Your task to perform on an android device: change timer sound Image 0: 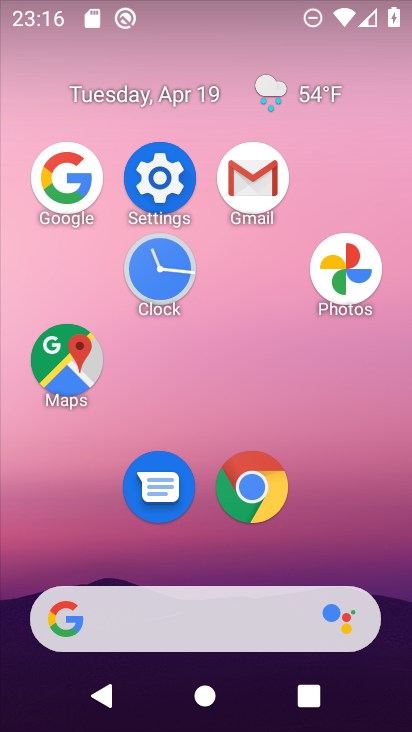
Step 0: click (160, 283)
Your task to perform on an android device: change timer sound Image 1: 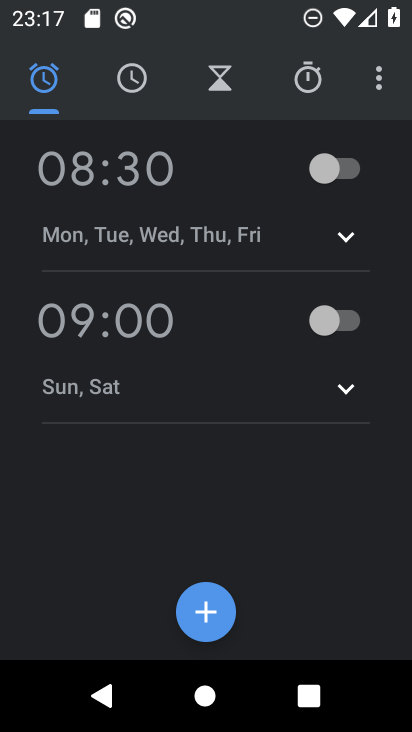
Step 1: click (375, 79)
Your task to perform on an android device: change timer sound Image 2: 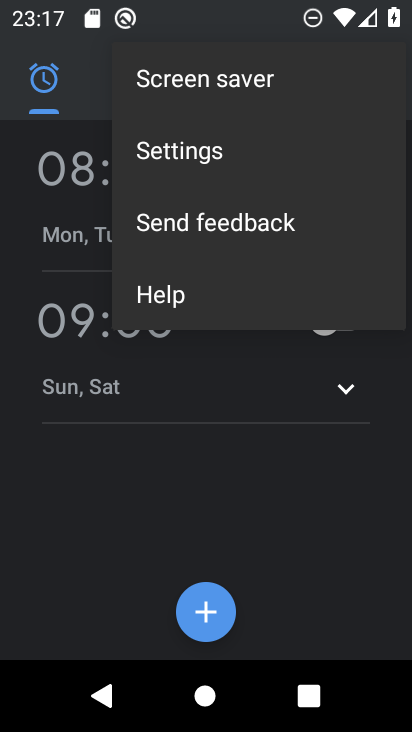
Step 2: click (269, 151)
Your task to perform on an android device: change timer sound Image 3: 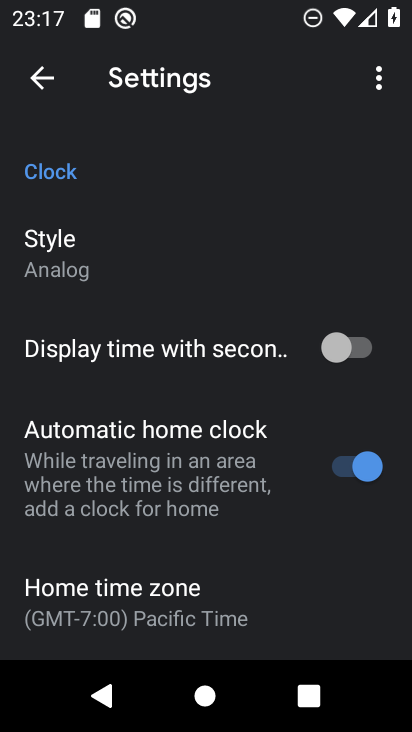
Step 3: drag from (230, 346) to (205, 130)
Your task to perform on an android device: change timer sound Image 4: 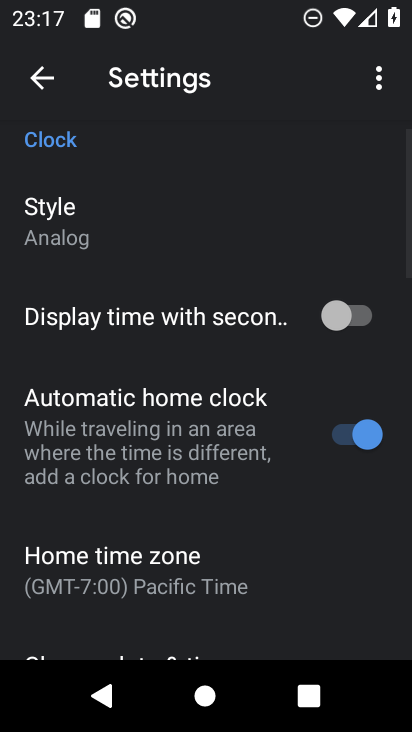
Step 4: drag from (233, 559) to (228, 108)
Your task to perform on an android device: change timer sound Image 5: 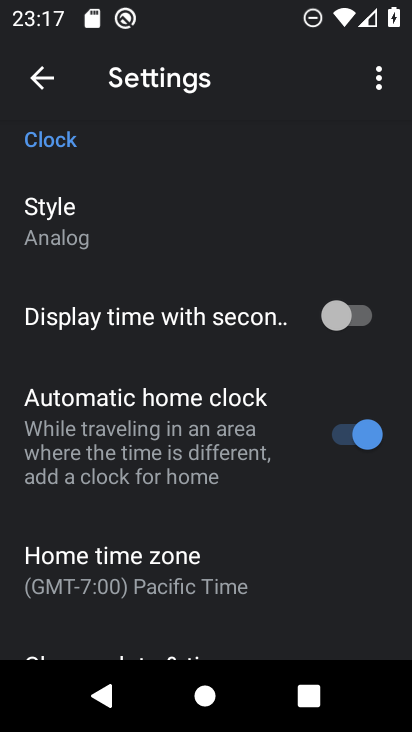
Step 5: drag from (230, 433) to (229, 176)
Your task to perform on an android device: change timer sound Image 6: 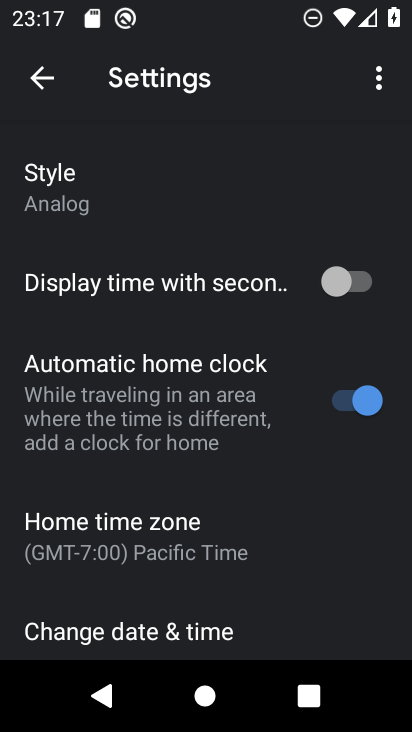
Step 6: drag from (239, 554) to (209, 197)
Your task to perform on an android device: change timer sound Image 7: 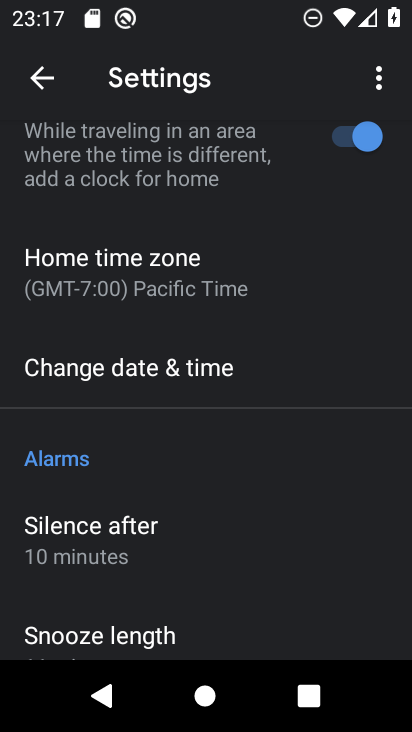
Step 7: drag from (246, 524) to (225, 188)
Your task to perform on an android device: change timer sound Image 8: 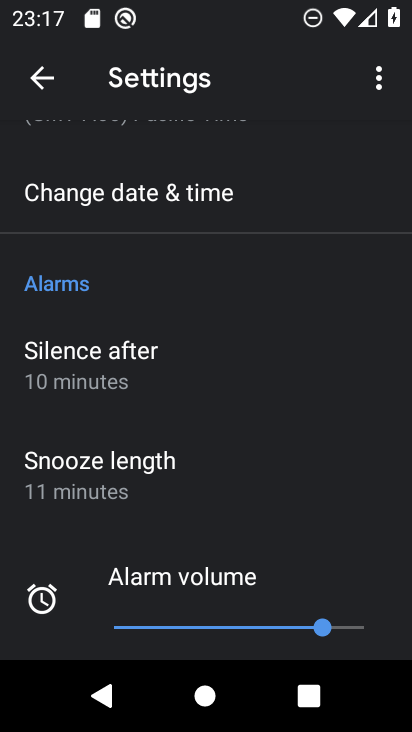
Step 8: drag from (237, 523) to (239, 113)
Your task to perform on an android device: change timer sound Image 9: 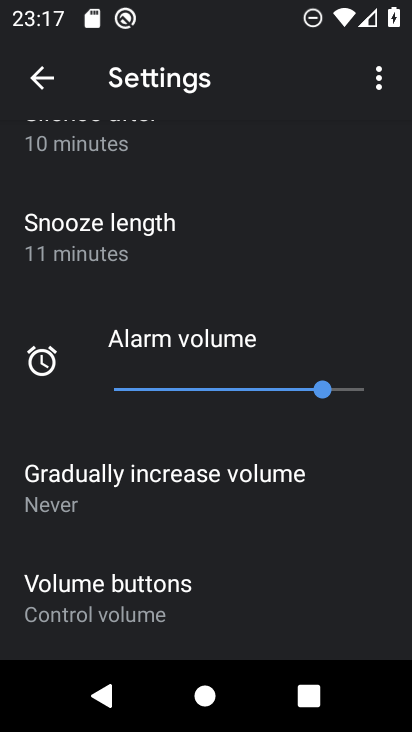
Step 9: drag from (280, 375) to (247, 109)
Your task to perform on an android device: change timer sound Image 10: 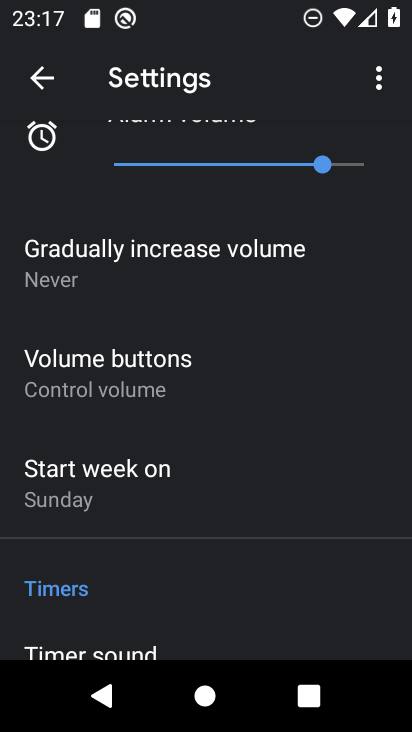
Step 10: drag from (303, 505) to (266, 152)
Your task to perform on an android device: change timer sound Image 11: 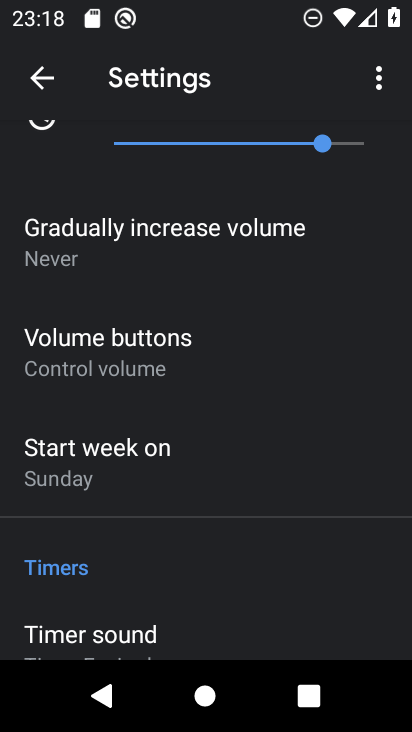
Step 11: drag from (305, 595) to (330, 157)
Your task to perform on an android device: change timer sound Image 12: 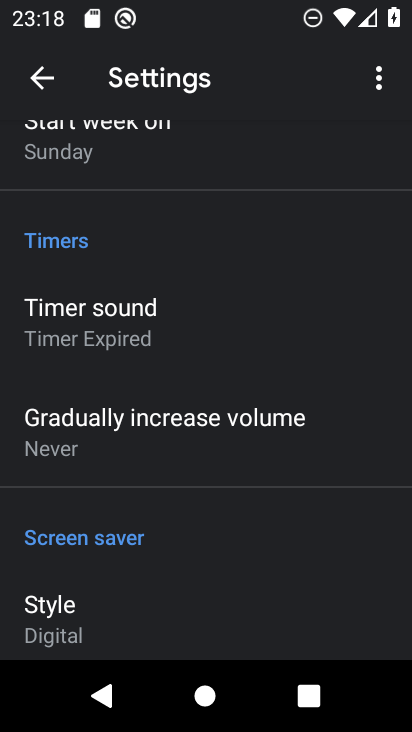
Step 12: click (128, 340)
Your task to perform on an android device: change timer sound Image 13: 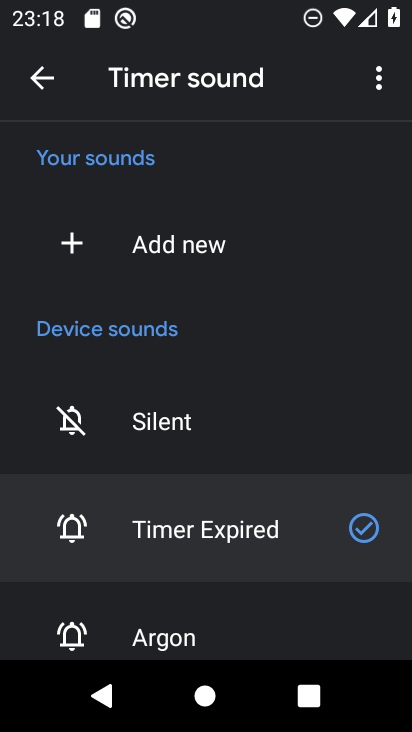
Step 13: click (208, 633)
Your task to perform on an android device: change timer sound Image 14: 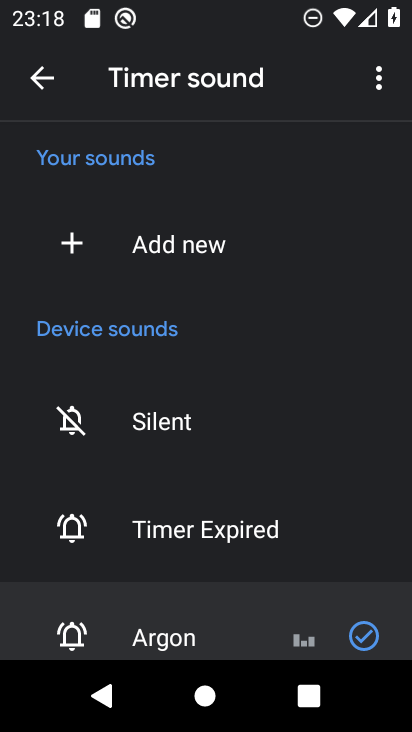
Step 14: task complete